Your task to perform on an android device: Open maps Image 0: 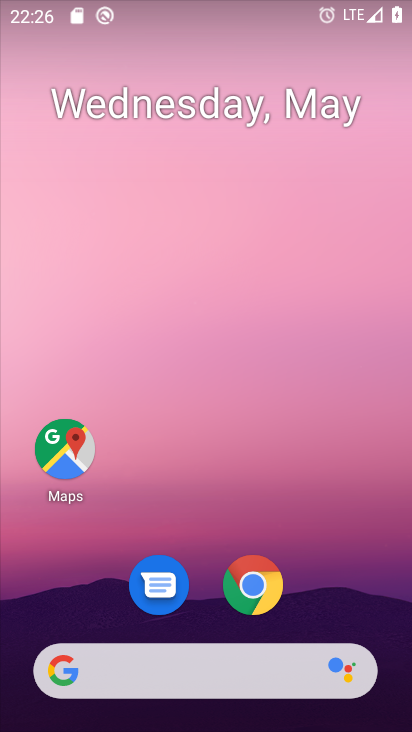
Step 0: click (61, 450)
Your task to perform on an android device: Open maps Image 1: 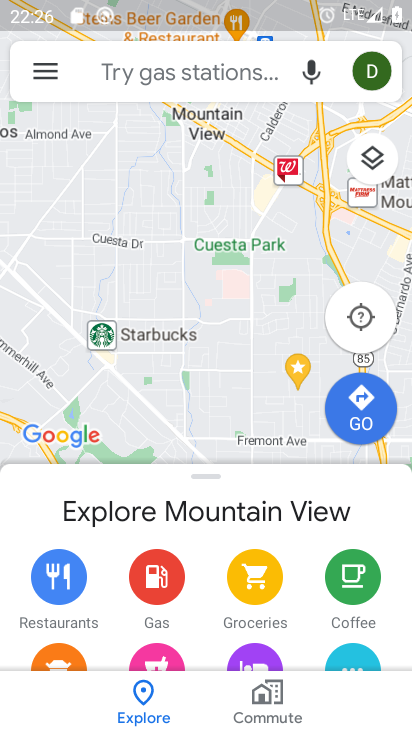
Step 1: task complete